Your task to perform on an android device: turn off translation in the chrome app Image 0: 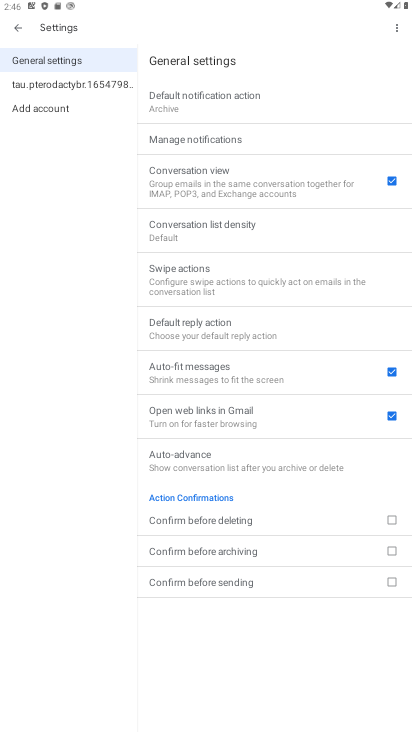
Step 0: press home button
Your task to perform on an android device: turn off translation in the chrome app Image 1: 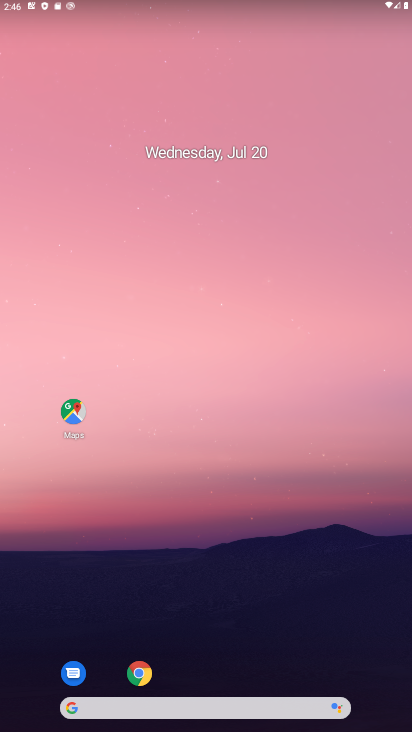
Step 1: click (148, 673)
Your task to perform on an android device: turn off translation in the chrome app Image 2: 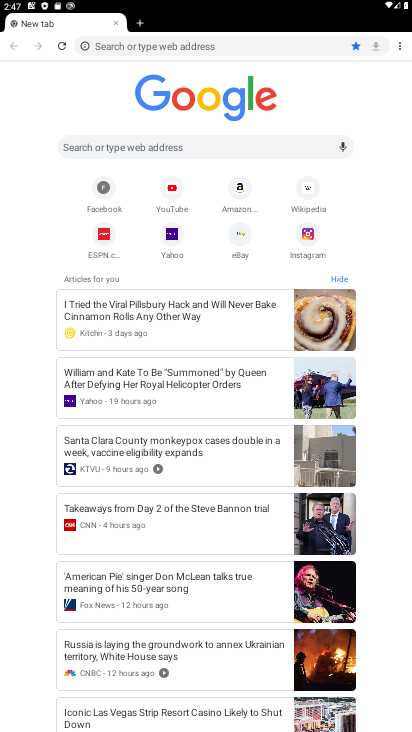
Step 2: click (395, 45)
Your task to perform on an android device: turn off translation in the chrome app Image 3: 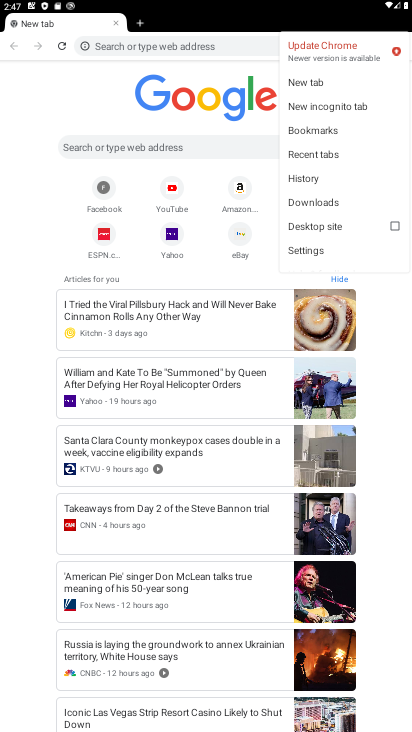
Step 3: click (312, 248)
Your task to perform on an android device: turn off translation in the chrome app Image 4: 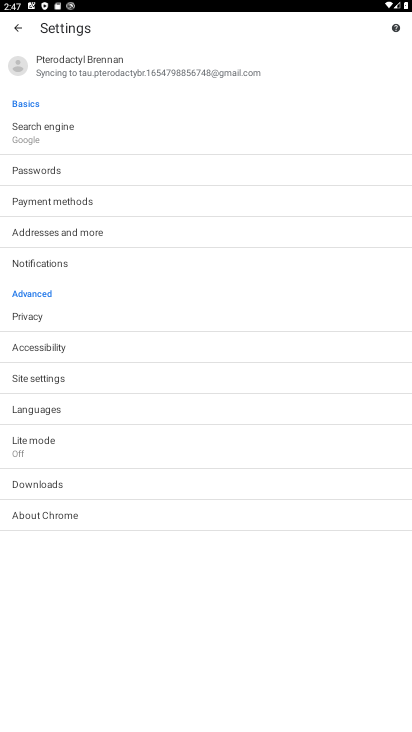
Step 4: click (47, 409)
Your task to perform on an android device: turn off translation in the chrome app Image 5: 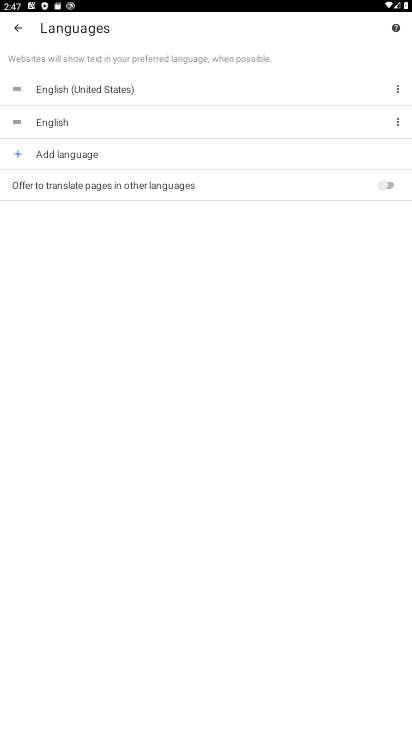
Step 5: task complete